Your task to perform on an android device: turn on wifi Image 0: 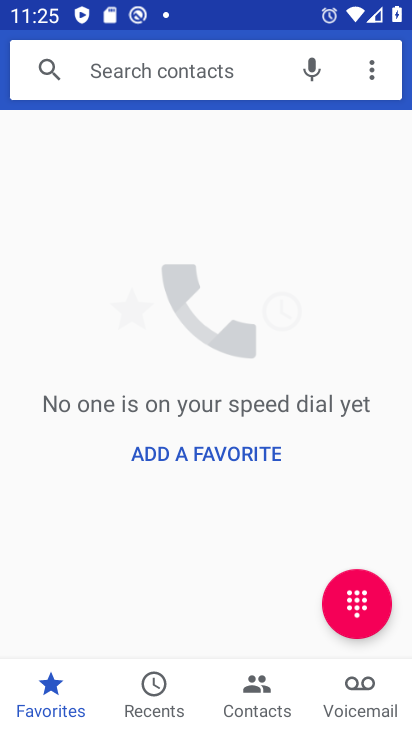
Step 0: press home button
Your task to perform on an android device: turn on wifi Image 1: 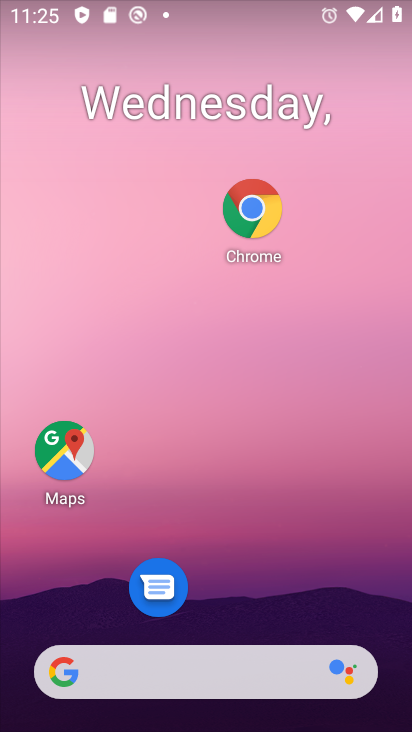
Step 1: drag from (207, 586) to (147, 0)
Your task to perform on an android device: turn on wifi Image 2: 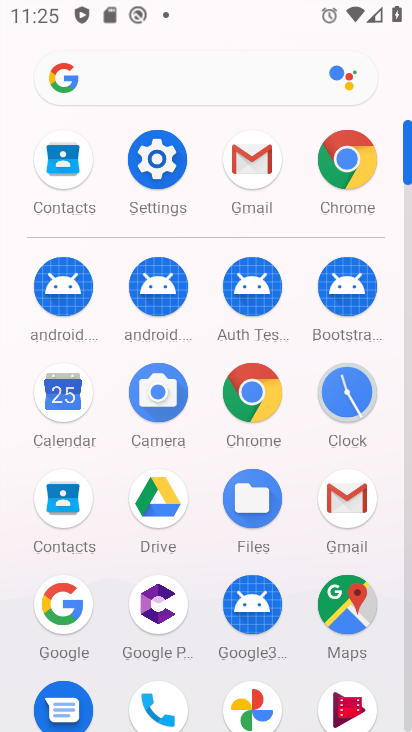
Step 2: click (150, 204)
Your task to perform on an android device: turn on wifi Image 3: 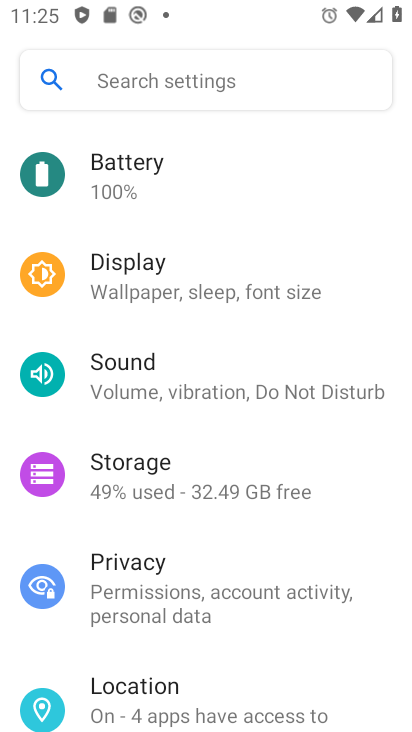
Step 3: drag from (149, 225) to (142, 624)
Your task to perform on an android device: turn on wifi Image 4: 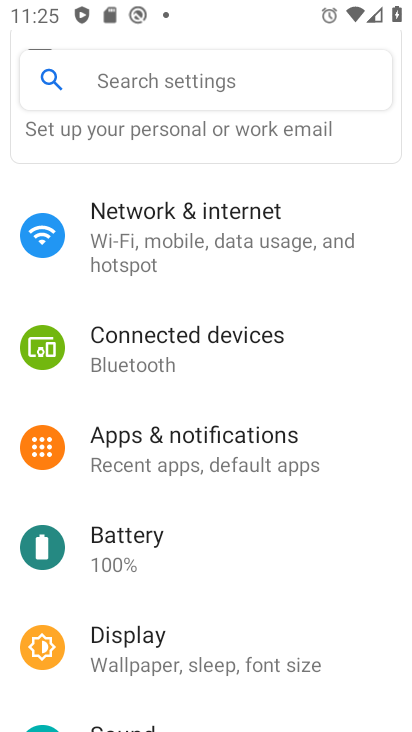
Step 4: click (214, 226)
Your task to perform on an android device: turn on wifi Image 5: 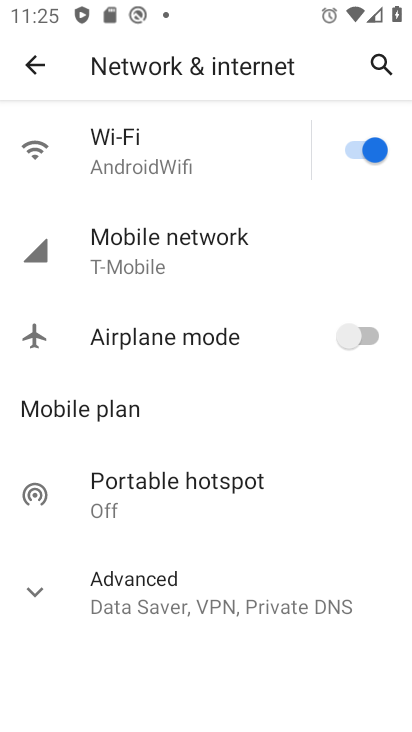
Step 5: task complete